Your task to perform on an android device: Is it going to rain this weekend? Image 0: 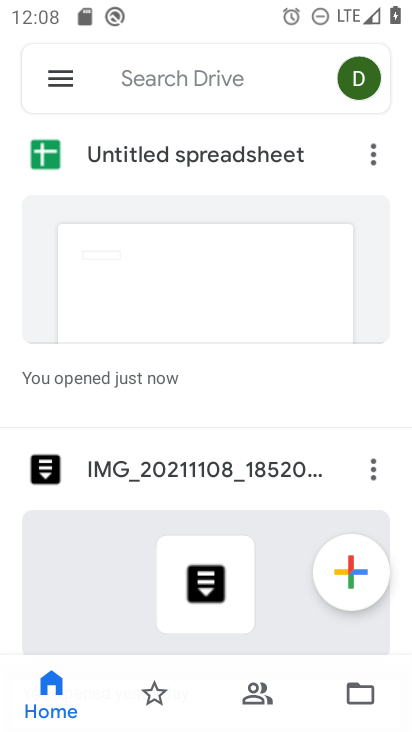
Step 0: press home button
Your task to perform on an android device: Is it going to rain this weekend? Image 1: 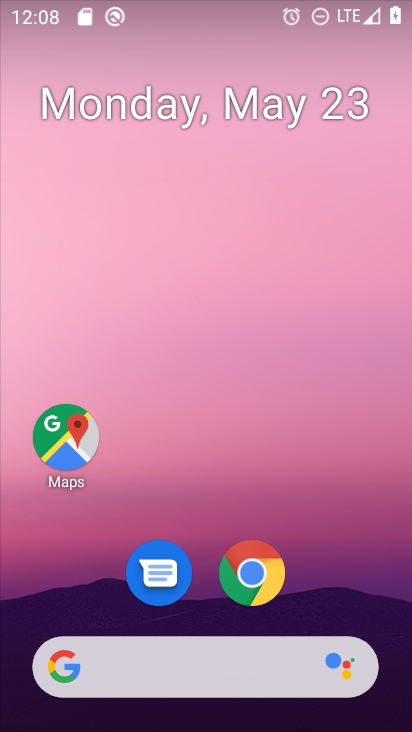
Step 1: click (183, 673)
Your task to perform on an android device: Is it going to rain this weekend? Image 2: 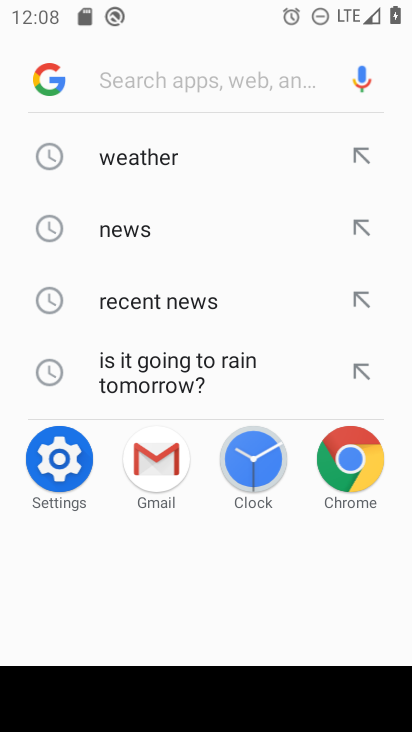
Step 2: type "is it going to rain this weekend"
Your task to perform on an android device: Is it going to rain this weekend? Image 3: 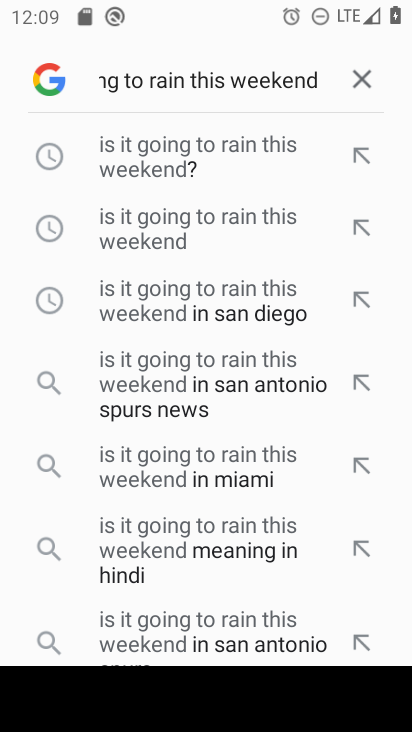
Step 3: click (143, 142)
Your task to perform on an android device: Is it going to rain this weekend? Image 4: 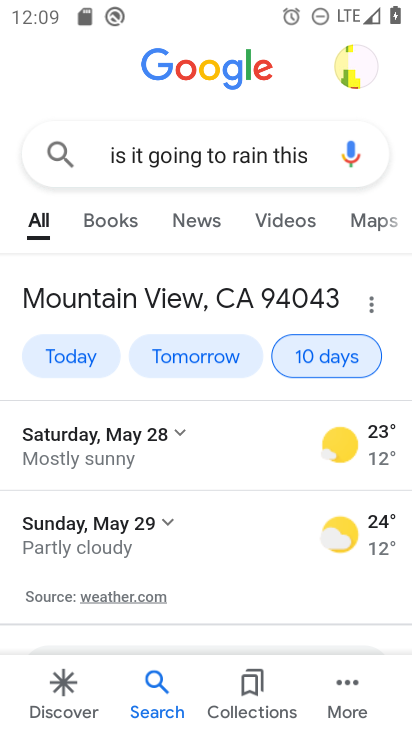
Step 4: task complete